Your task to perform on an android device: Open the phone app and click the voicemail tab. Image 0: 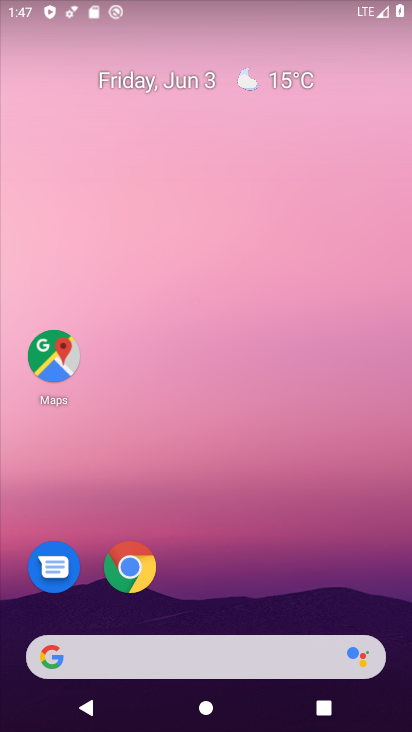
Step 0: drag from (152, 632) to (237, 141)
Your task to perform on an android device: Open the phone app and click the voicemail tab. Image 1: 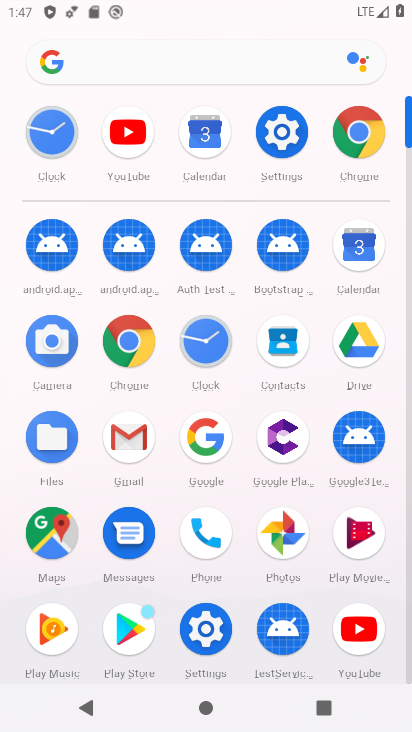
Step 1: click (211, 531)
Your task to perform on an android device: Open the phone app and click the voicemail tab. Image 2: 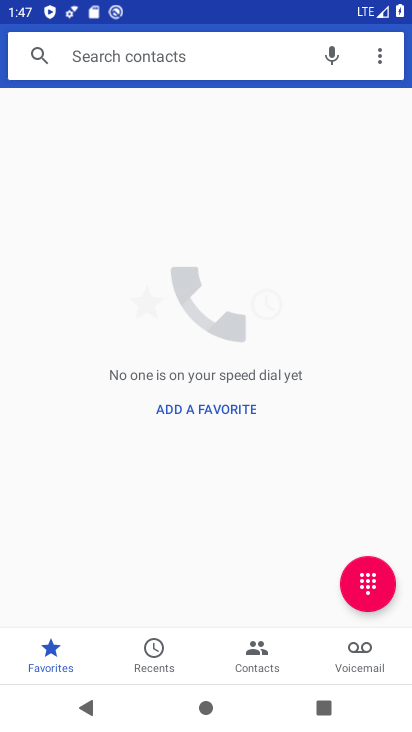
Step 2: click (361, 659)
Your task to perform on an android device: Open the phone app and click the voicemail tab. Image 3: 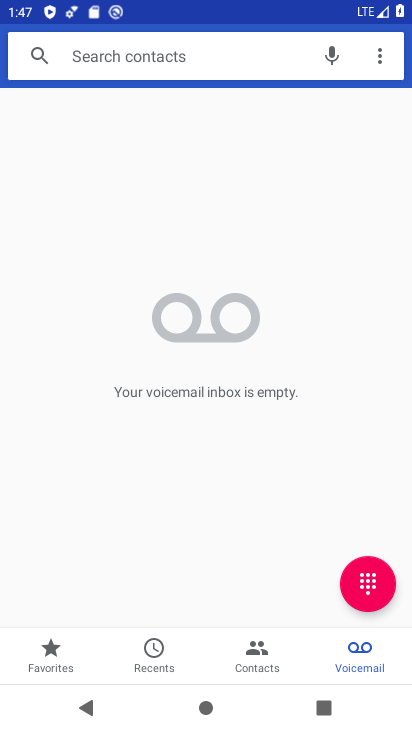
Step 3: task complete